Your task to perform on an android device: Add bose soundlink mini to the cart on bestbuy Image 0: 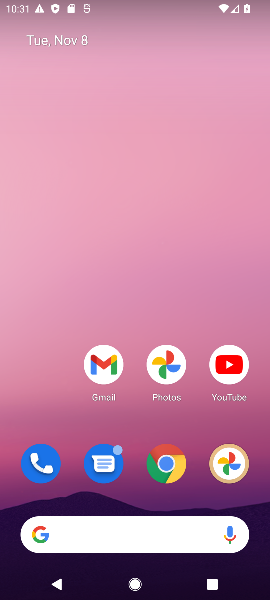
Step 0: click (171, 468)
Your task to perform on an android device: Add bose soundlink mini to the cart on bestbuy Image 1: 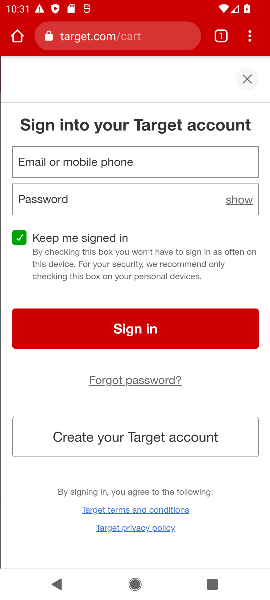
Step 1: click (81, 28)
Your task to perform on an android device: Add bose soundlink mini to the cart on bestbuy Image 2: 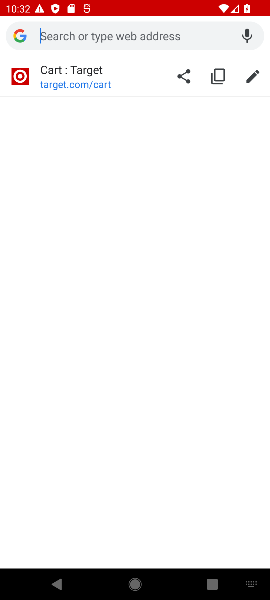
Step 2: type "bestbuy"
Your task to perform on an android device: Add bose soundlink mini to the cart on bestbuy Image 3: 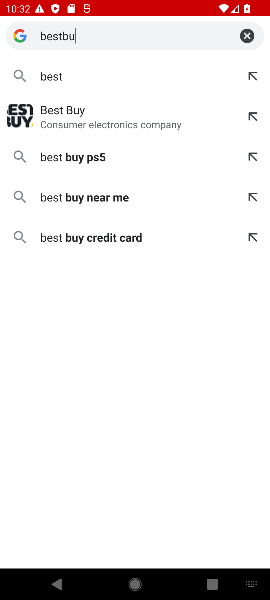
Step 3: press enter
Your task to perform on an android device: Add bose soundlink mini to the cart on bestbuy Image 4: 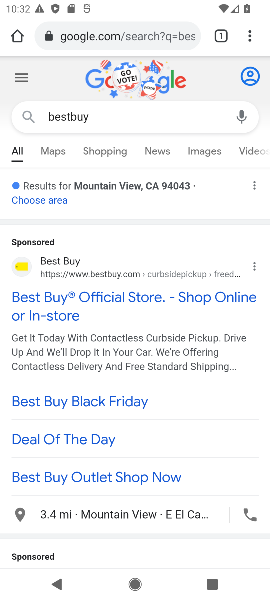
Step 4: click (86, 271)
Your task to perform on an android device: Add bose soundlink mini to the cart on bestbuy Image 5: 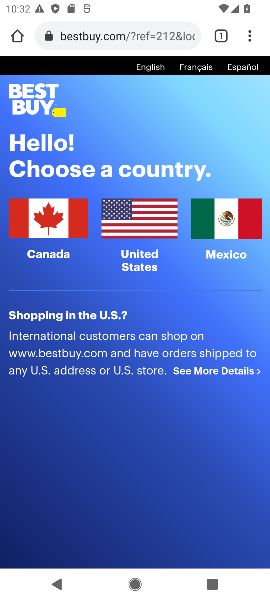
Step 5: click (117, 228)
Your task to perform on an android device: Add bose soundlink mini to the cart on bestbuy Image 6: 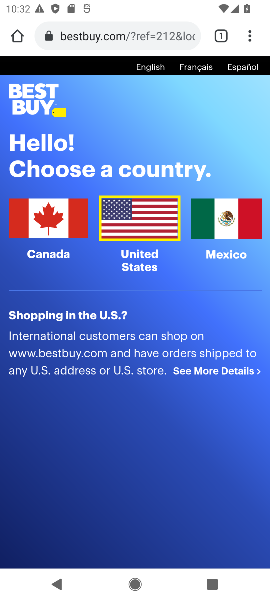
Step 6: click (117, 228)
Your task to perform on an android device: Add bose soundlink mini to the cart on bestbuy Image 7: 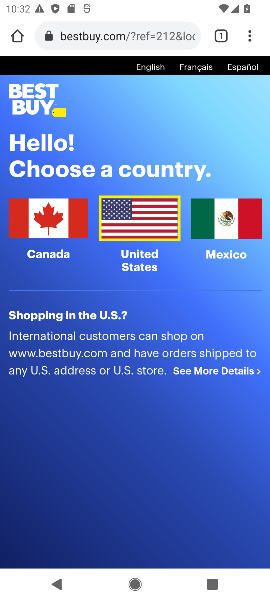
Step 7: click (117, 228)
Your task to perform on an android device: Add bose soundlink mini to the cart on bestbuy Image 8: 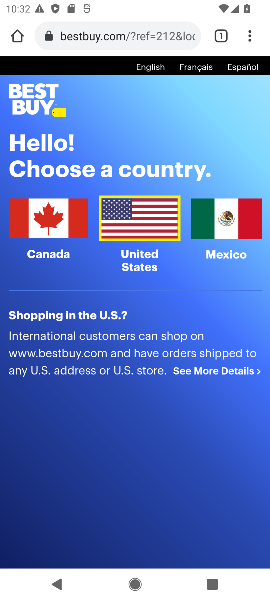
Step 8: click (117, 228)
Your task to perform on an android device: Add bose soundlink mini to the cart on bestbuy Image 9: 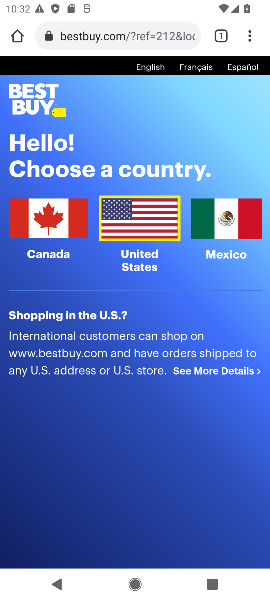
Step 9: click (149, 213)
Your task to perform on an android device: Add bose soundlink mini to the cart on bestbuy Image 10: 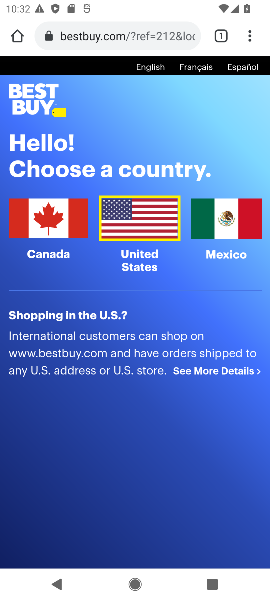
Step 10: task complete